Your task to perform on an android device: toggle translation in the chrome app Image 0: 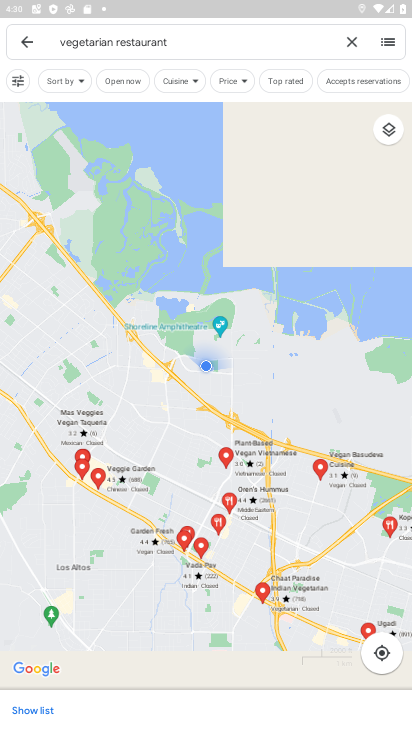
Step 0: press back button
Your task to perform on an android device: toggle translation in the chrome app Image 1: 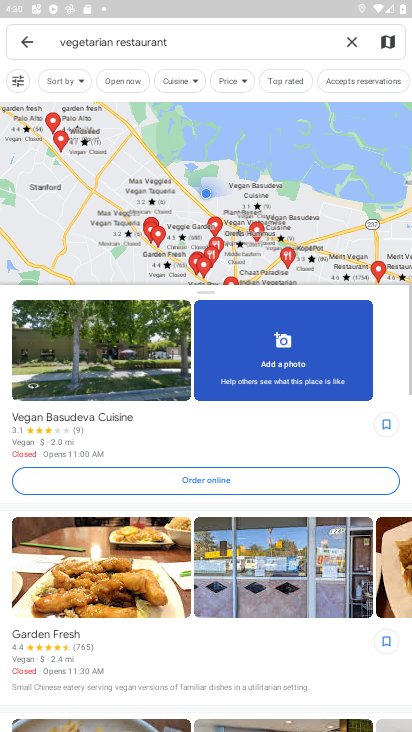
Step 1: press back button
Your task to perform on an android device: toggle translation in the chrome app Image 2: 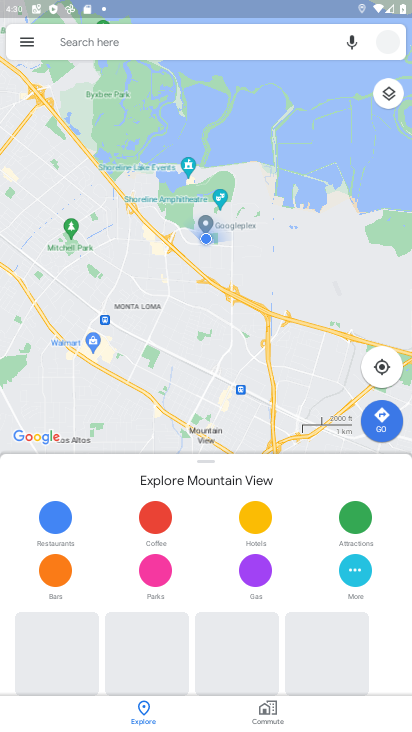
Step 2: press back button
Your task to perform on an android device: toggle translation in the chrome app Image 3: 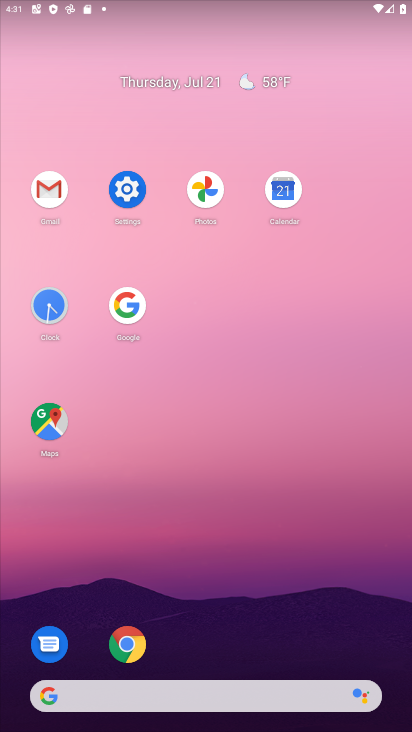
Step 3: click (125, 641)
Your task to perform on an android device: toggle translation in the chrome app Image 4: 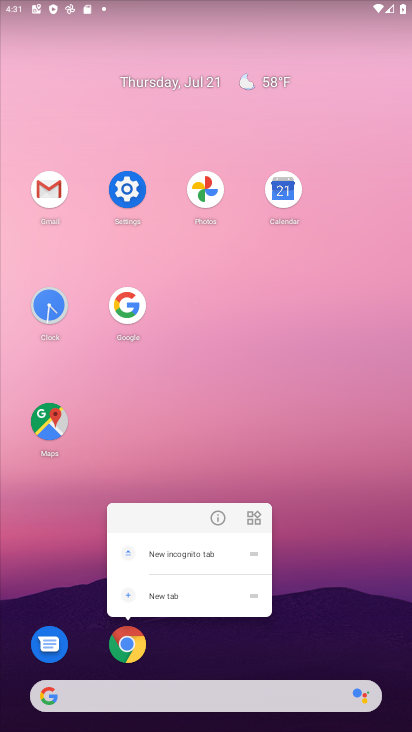
Step 4: click (124, 650)
Your task to perform on an android device: toggle translation in the chrome app Image 5: 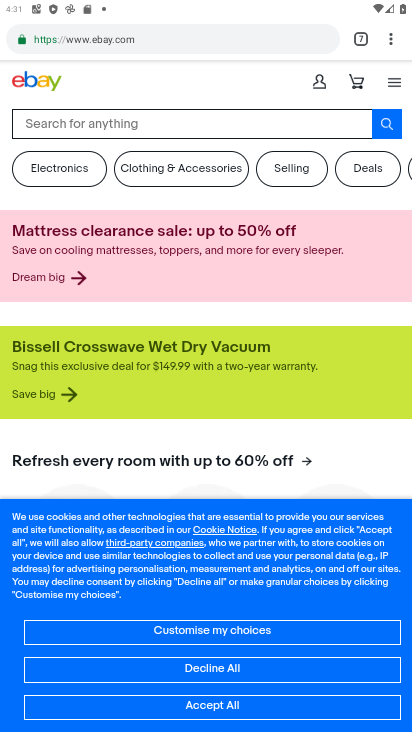
Step 5: click (389, 36)
Your task to perform on an android device: toggle translation in the chrome app Image 6: 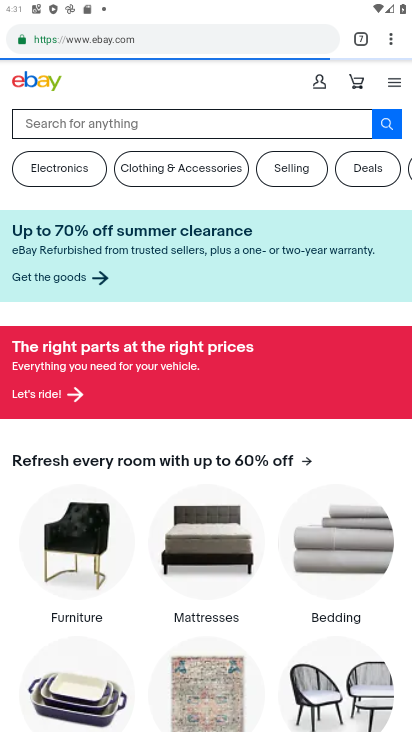
Step 6: click (389, 37)
Your task to perform on an android device: toggle translation in the chrome app Image 7: 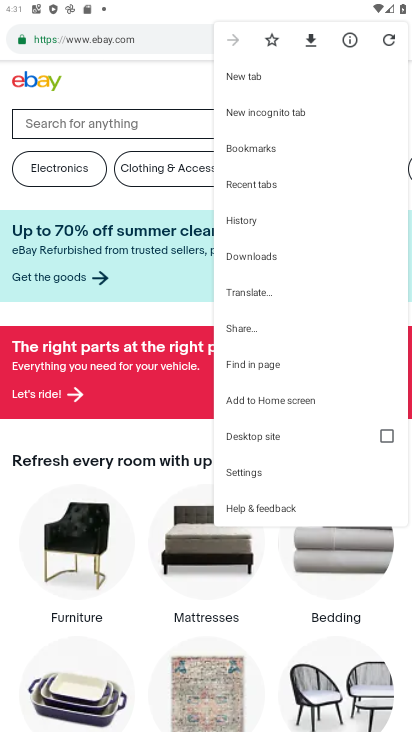
Step 7: click (271, 466)
Your task to perform on an android device: toggle translation in the chrome app Image 8: 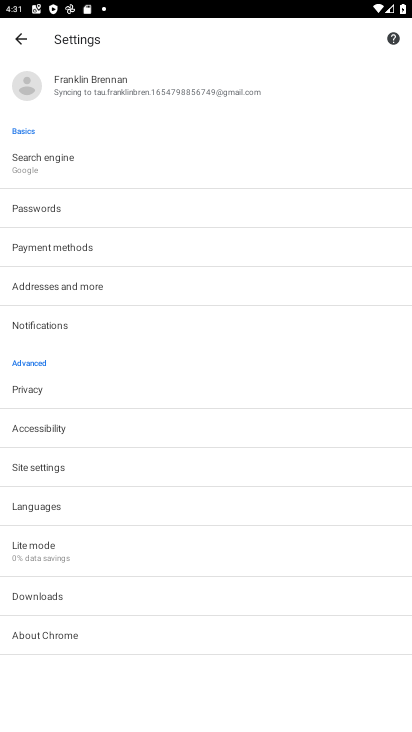
Step 8: click (151, 508)
Your task to perform on an android device: toggle translation in the chrome app Image 9: 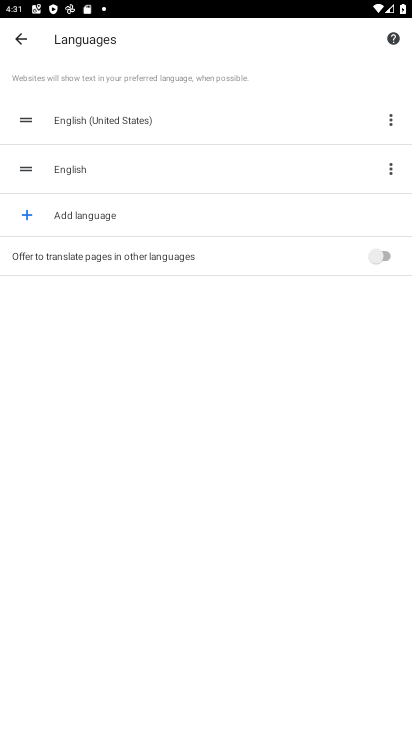
Step 9: click (376, 260)
Your task to perform on an android device: toggle translation in the chrome app Image 10: 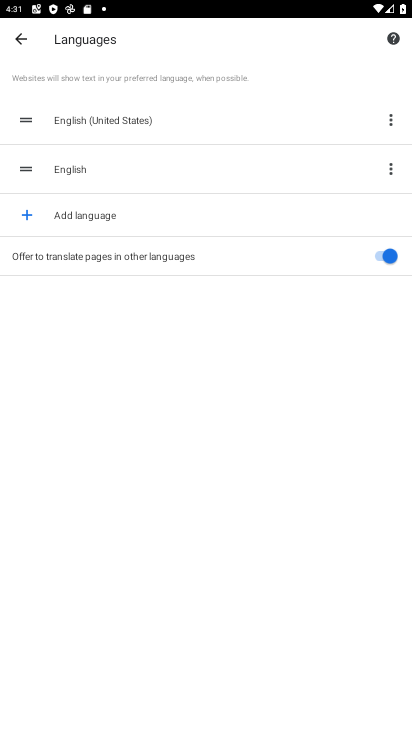
Step 10: task complete